Your task to perform on an android device: Open the calendar and show me this week's events? Image 0: 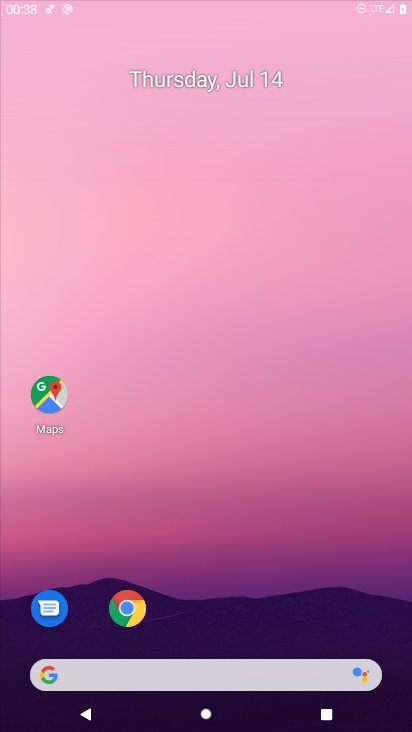
Step 0: press home button
Your task to perform on an android device: Open the calendar and show me this week's events? Image 1: 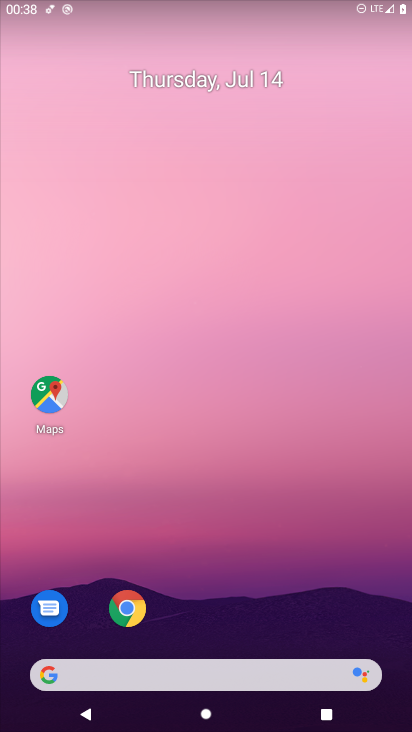
Step 1: drag from (203, 574) to (149, 93)
Your task to perform on an android device: Open the calendar and show me this week's events? Image 2: 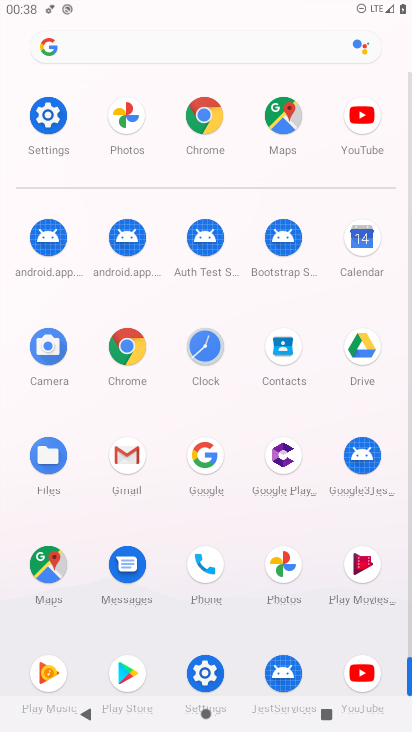
Step 2: click (361, 244)
Your task to perform on an android device: Open the calendar and show me this week's events? Image 3: 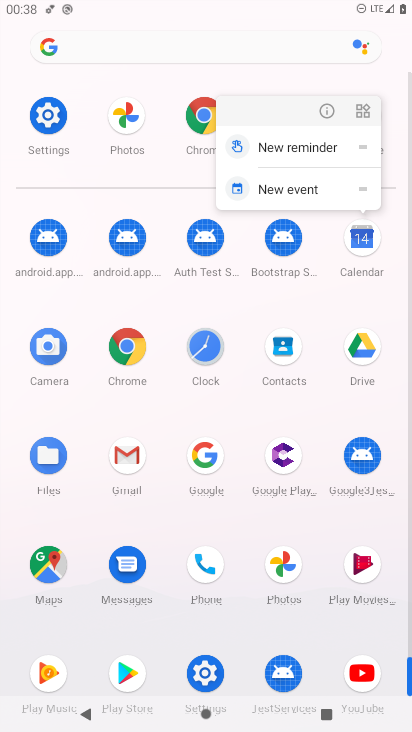
Step 3: click (361, 244)
Your task to perform on an android device: Open the calendar and show me this week's events? Image 4: 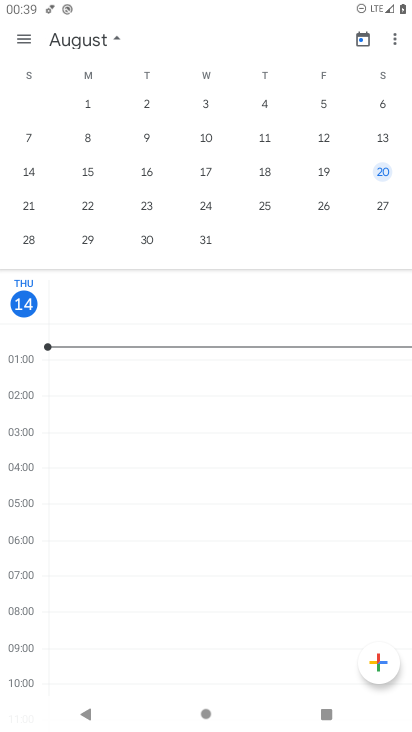
Step 4: click (122, 42)
Your task to perform on an android device: Open the calendar and show me this week's events? Image 5: 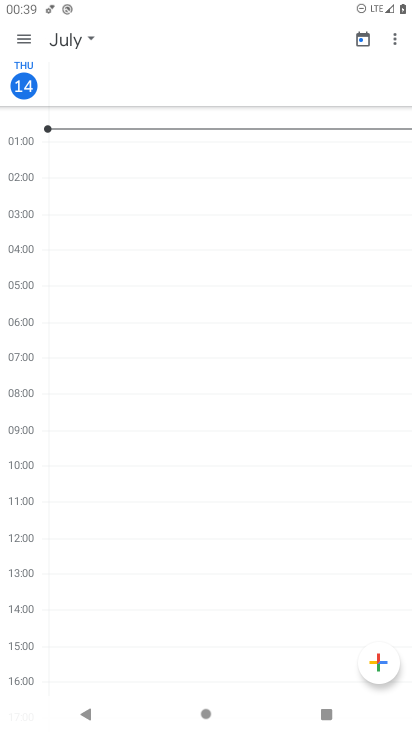
Step 5: click (27, 35)
Your task to perform on an android device: Open the calendar and show me this week's events? Image 6: 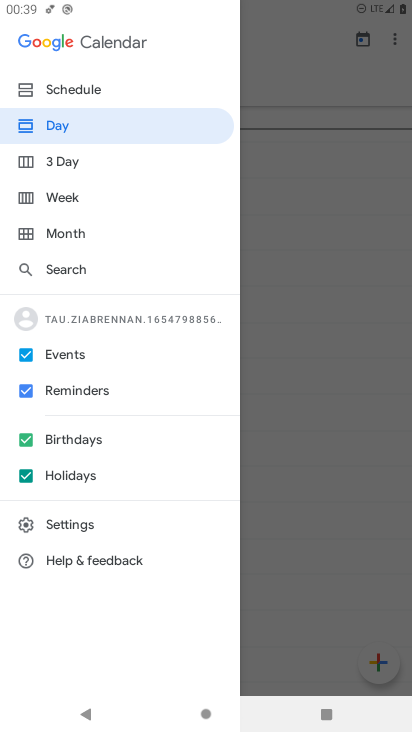
Step 6: click (80, 195)
Your task to perform on an android device: Open the calendar and show me this week's events? Image 7: 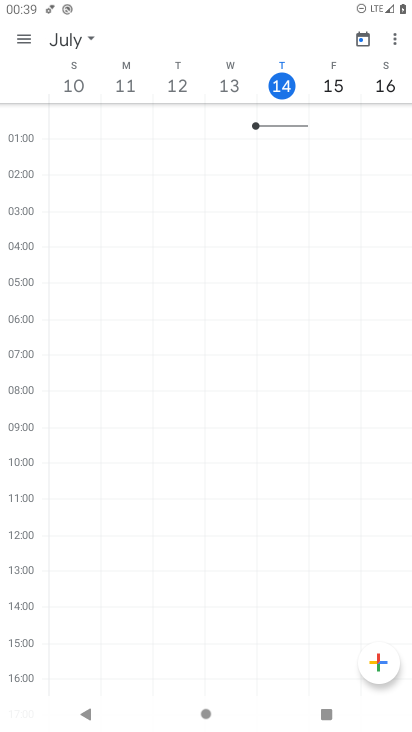
Step 7: task complete